Your task to perform on an android device: turn notification dots off Image 0: 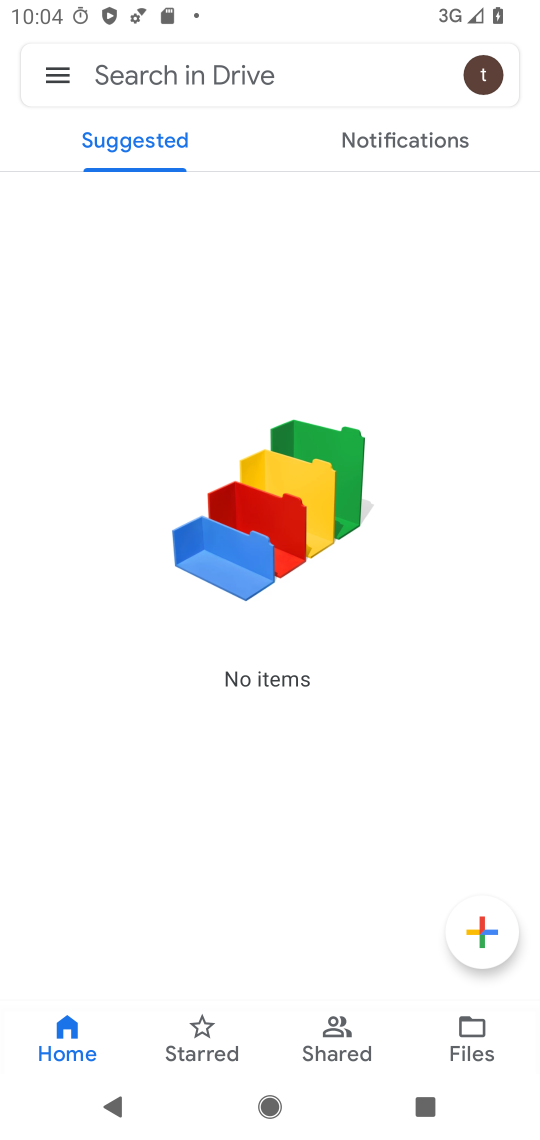
Step 0: press home button
Your task to perform on an android device: turn notification dots off Image 1: 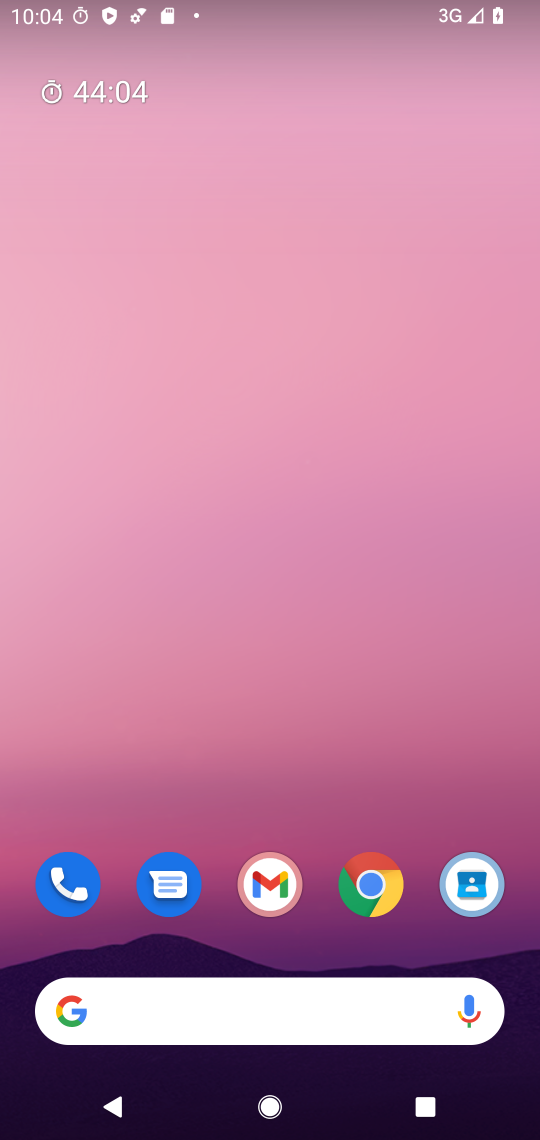
Step 1: drag from (276, 826) to (276, 110)
Your task to perform on an android device: turn notification dots off Image 2: 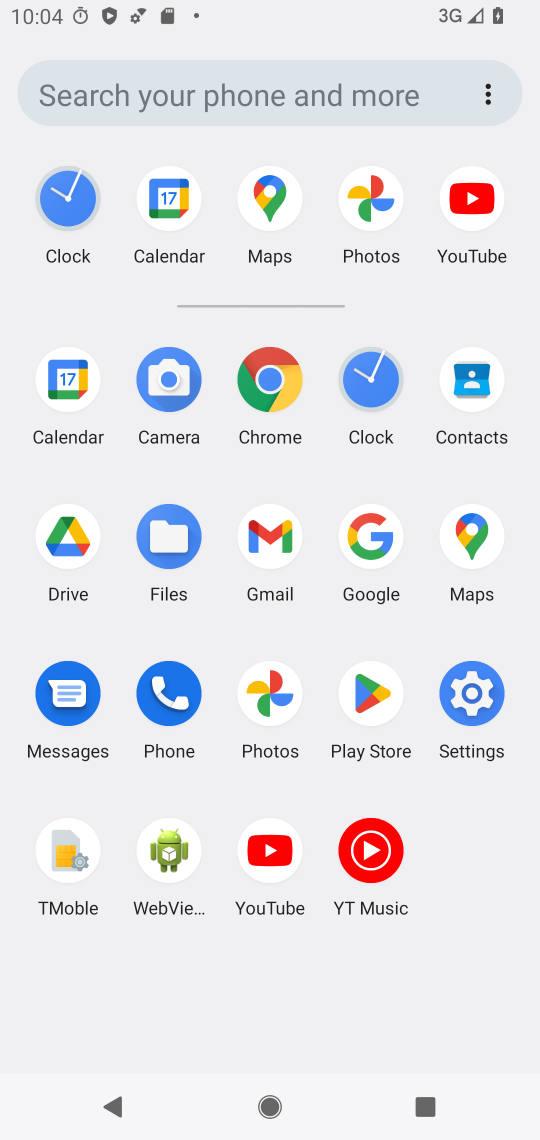
Step 2: click (462, 672)
Your task to perform on an android device: turn notification dots off Image 3: 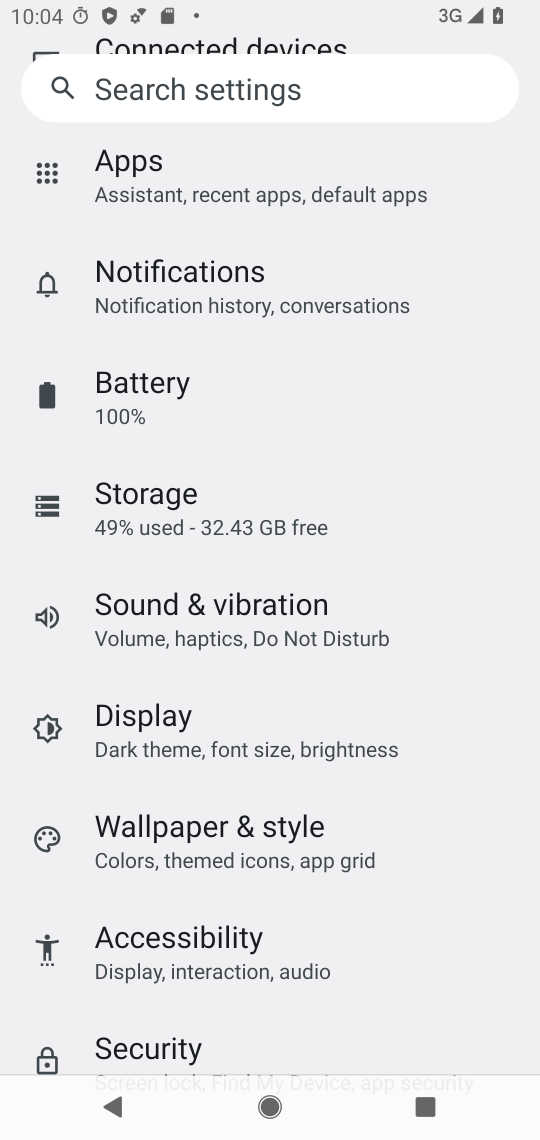
Step 3: click (246, 294)
Your task to perform on an android device: turn notification dots off Image 4: 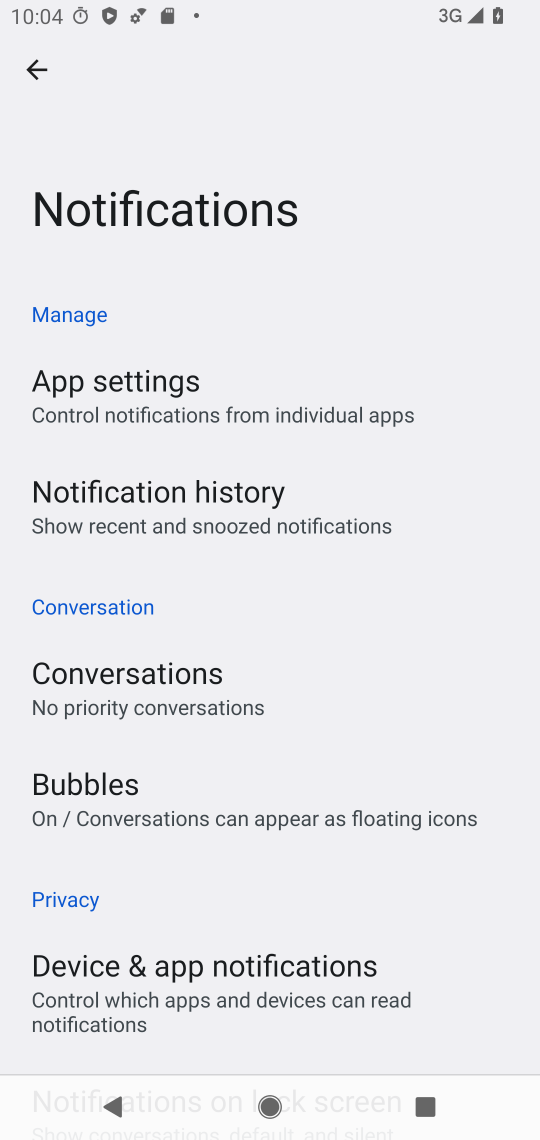
Step 4: task complete